Your task to perform on an android device: What's the weather going to be this weekend? Image 0: 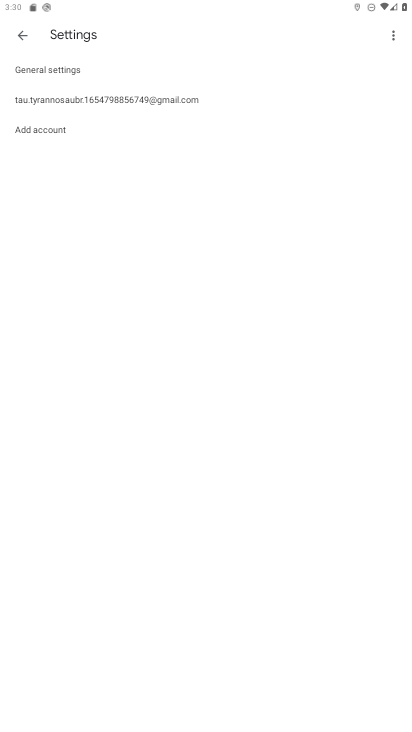
Step 0: press home button
Your task to perform on an android device: What's the weather going to be this weekend? Image 1: 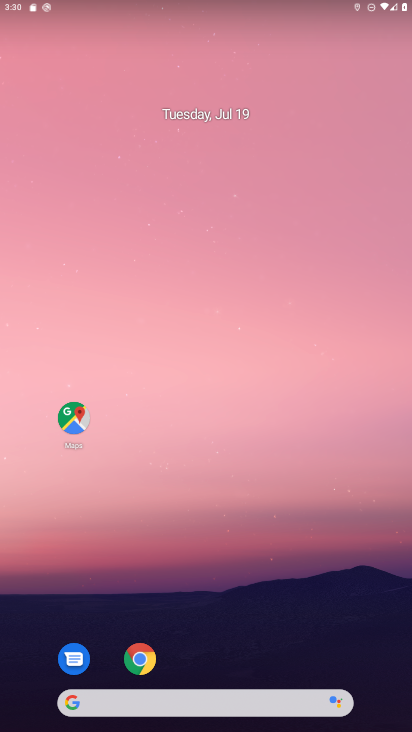
Step 1: click (204, 699)
Your task to perform on an android device: What's the weather going to be this weekend? Image 2: 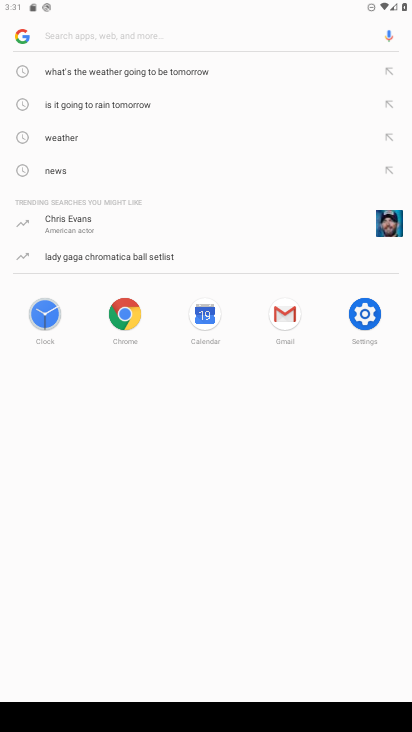
Step 2: type "what's the weather going to be this weekend"
Your task to perform on an android device: What's the weather going to be this weekend? Image 3: 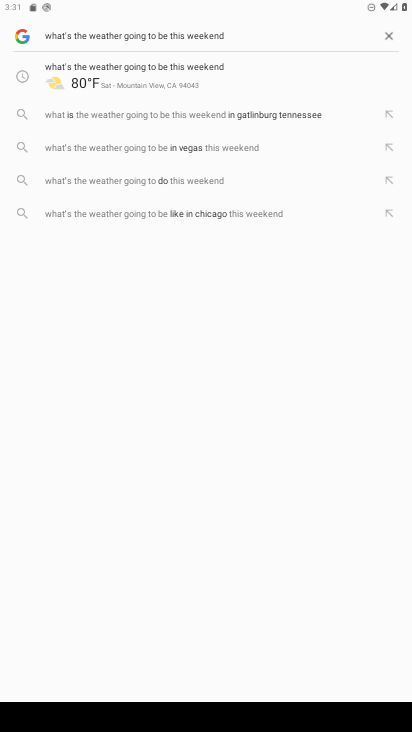
Step 3: click (215, 77)
Your task to perform on an android device: What's the weather going to be this weekend? Image 4: 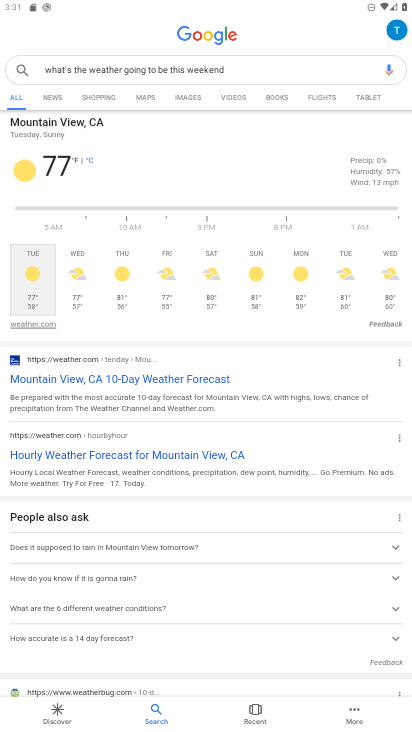
Step 4: task complete